Your task to perform on an android device: Go to Yahoo.com Image 0: 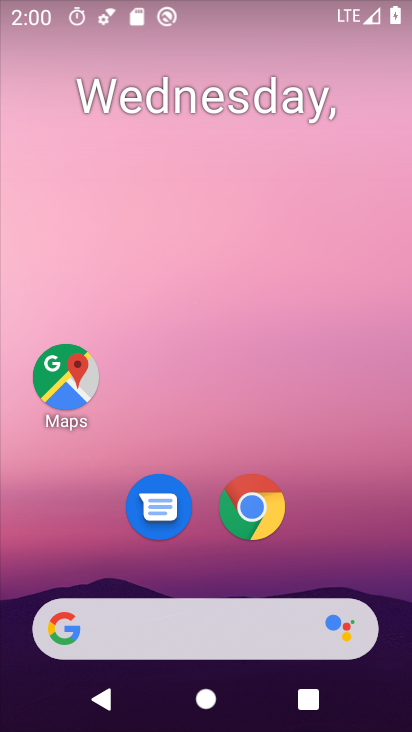
Step 0: click (270, 505)
Your task to perform on an android device: Go to Yahoo.com Image 1: 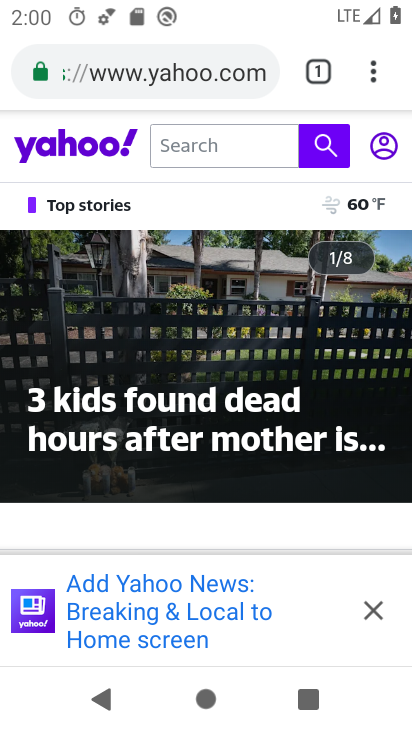
Step 1: task complete